Your task to perform on an android device: Is it going to rain today? Image 0: 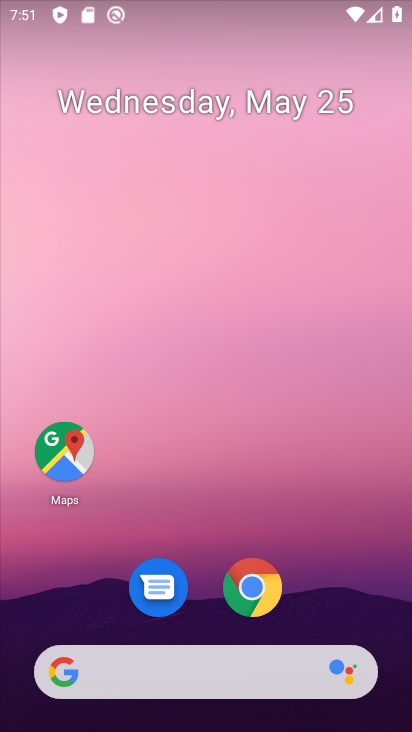
Step 0: drag from (283, 588) to (316, 234)
Your task to perform on an android device: Is it going to rain today? Image 1: 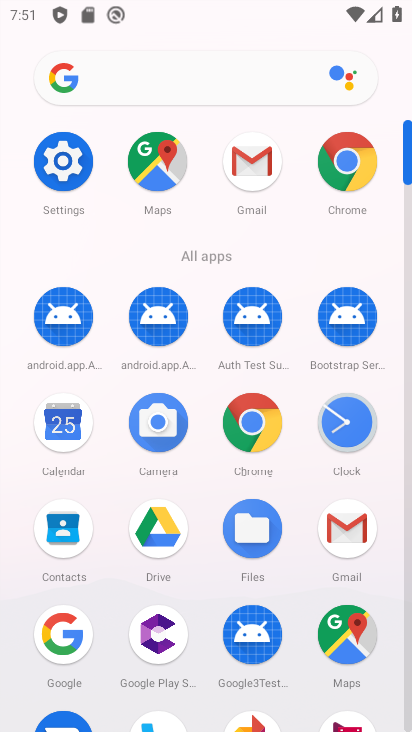
Step 1: click (253, 417)
Your task to perform on an android device: Is it going to rain today? Image 2: 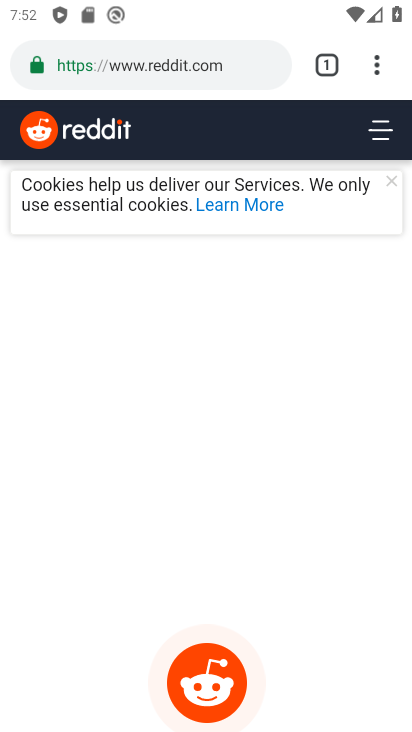
Step 2: click (198, 68)
Your task to perform on an android device: Is it going to rain today? Image 3: 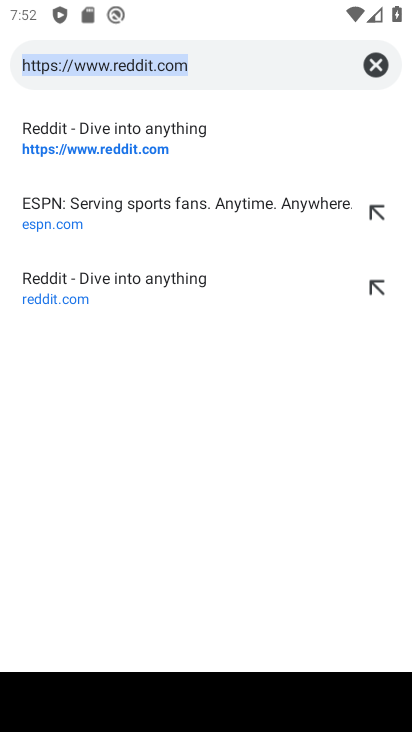
Step 3: click (374, 65)
Your task to perform on an android device: Is it going to rain today? Image 4: 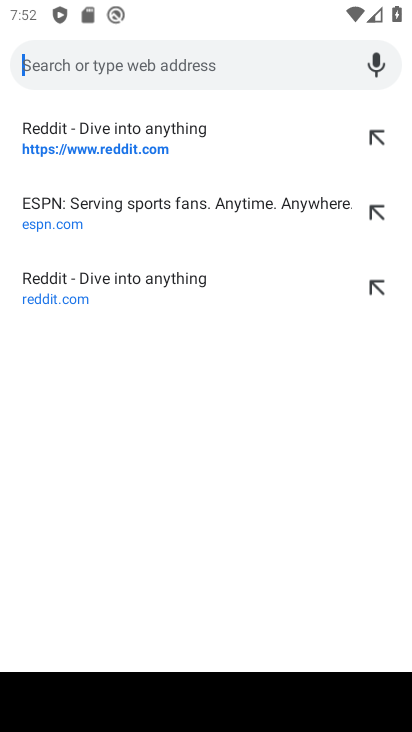
Step 4: type "Is it going to rain today?"
Your task to perform on an android device: Is it going to rain today? Image 5: 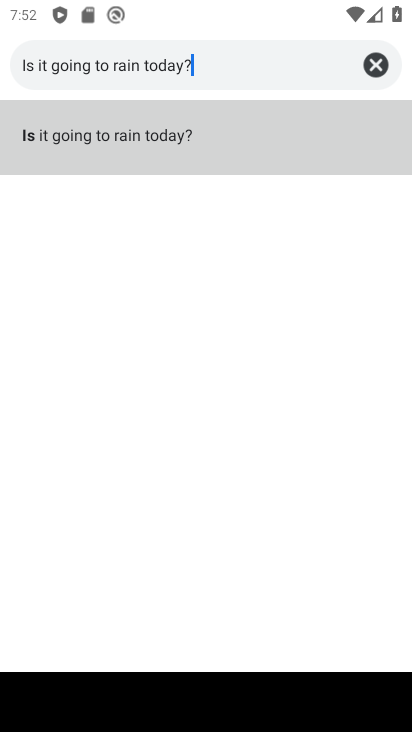
Step 5: click (127, 142)
Your task to perform on an android device: Is it going to rain today? Image 6: 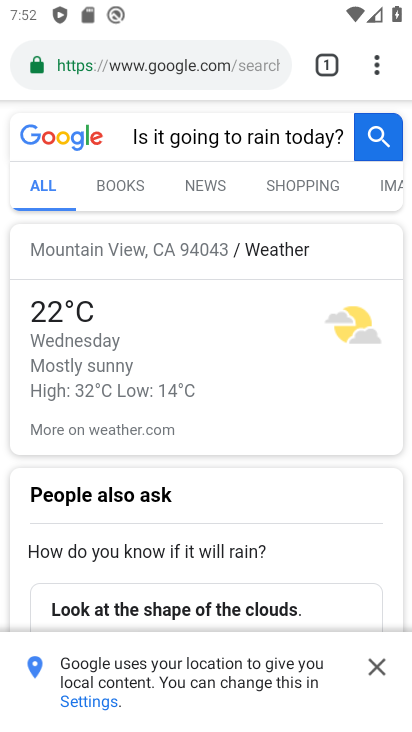
Step 6: task complete